Your task to perform on an android device: turn off location history Image 0: 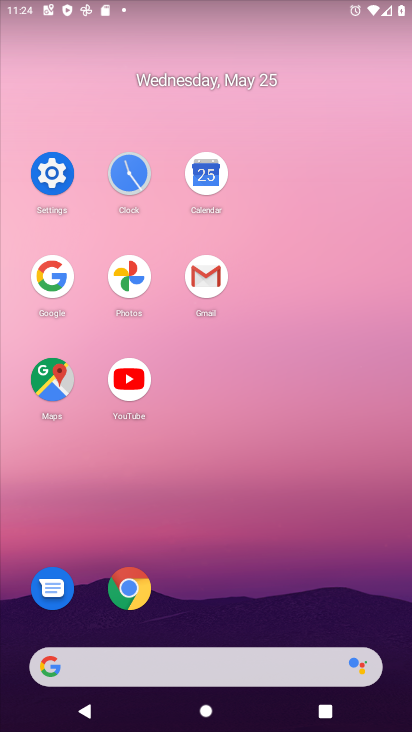
Step 0: click (51, 186)
Your task to perform on an android device: turn off location history Image 1: 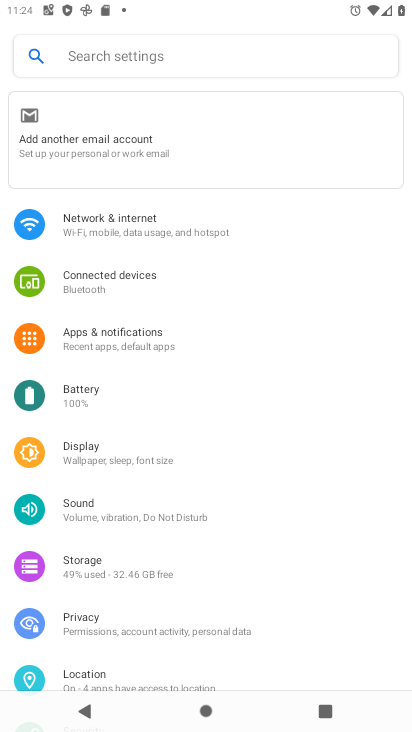
Step 1: click (175, 663)
Your task to perform on an android device: turn off location history Image 2: 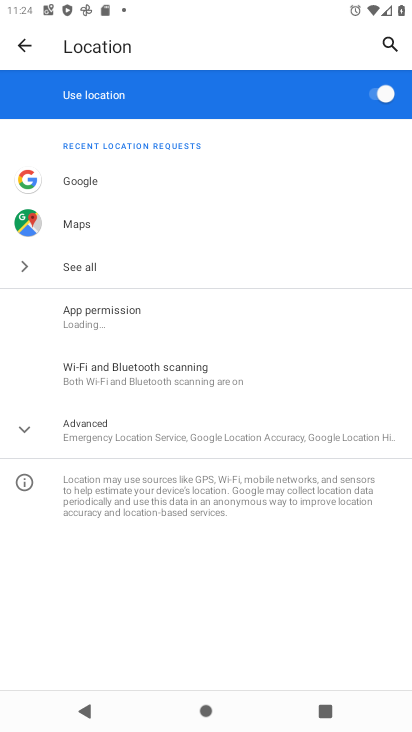
Step 2: click (158, 421)
Your task to perform on an android device: turn off location history Image 3: 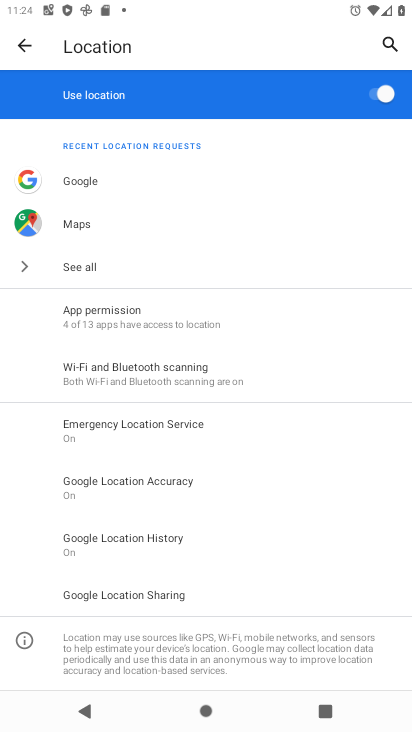
Step 3: click (165, 544)
Your task to perform on an android device: turn off location history Image 4: 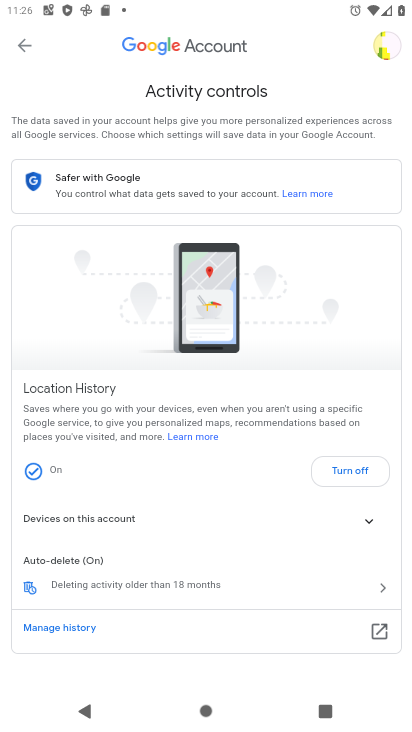
Step 4: click (359, 467)
Your task to perform on an android device: turn off location history Image 5: 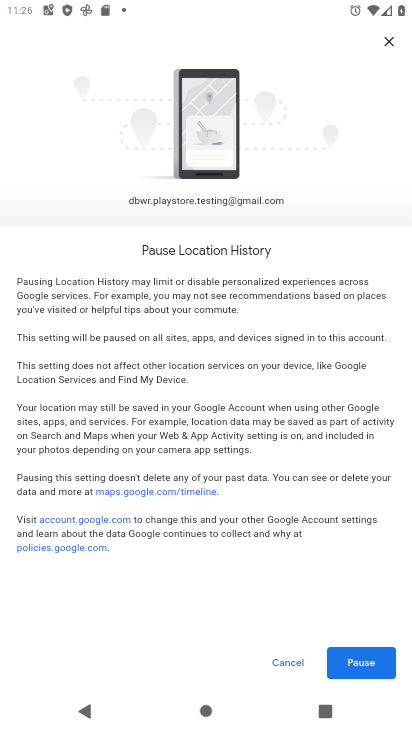
Step 5: click (346, 673)
Your task to perform on an android device: turn off location history Image 6: 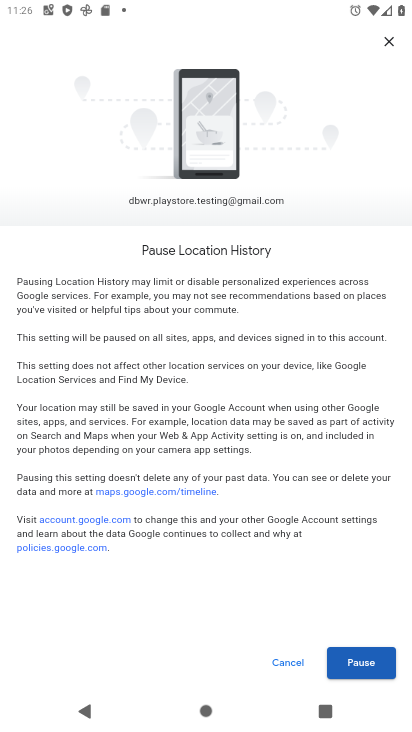
Step 6: click (368, 660)
Your task to perform on an android device: turn off location history Image 7: 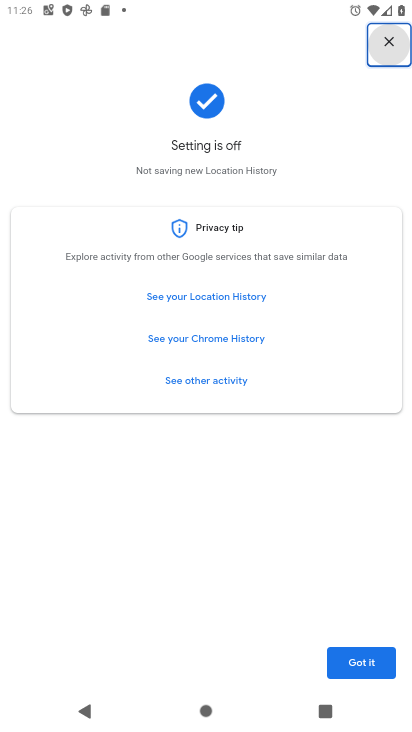
Step 7: click (362, 656)
Your task to perform on an android device: turn off location history Image 8: 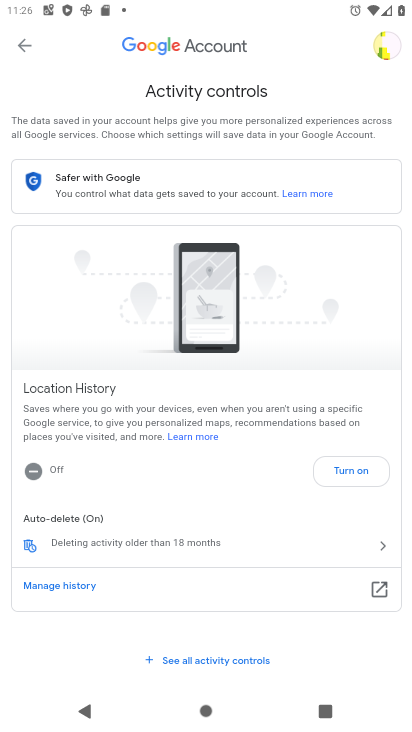
Step 8: task complete